Your task to perform on an android device: turn on location history Image 0: 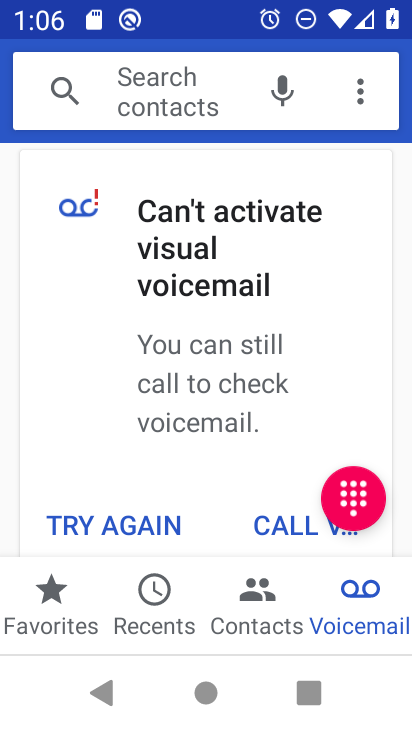
Step 0: press home button
Your task to perform on an android device: turn on location history Image 1: 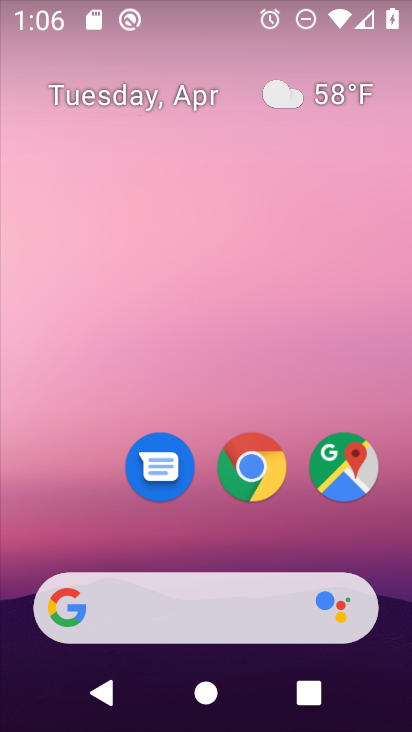
Step 1: drag from (153, 293) to (218, 690)
Your task to perform on an android device: turn on location history Image 2: 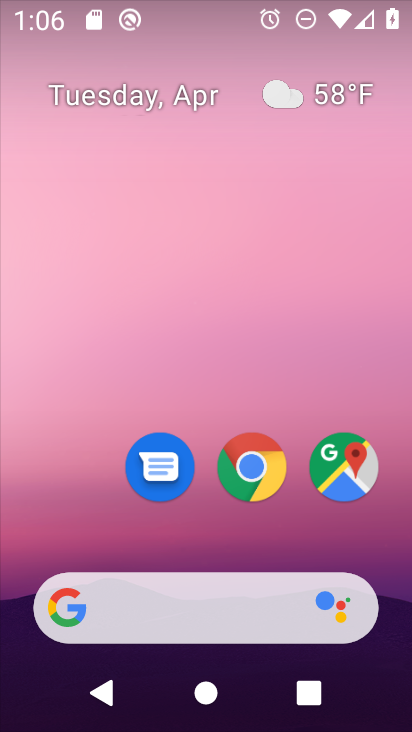
Step 2: drag from (238, 16) to (218, 653)
Your task to perform on an android device: turn on location history Image 3: 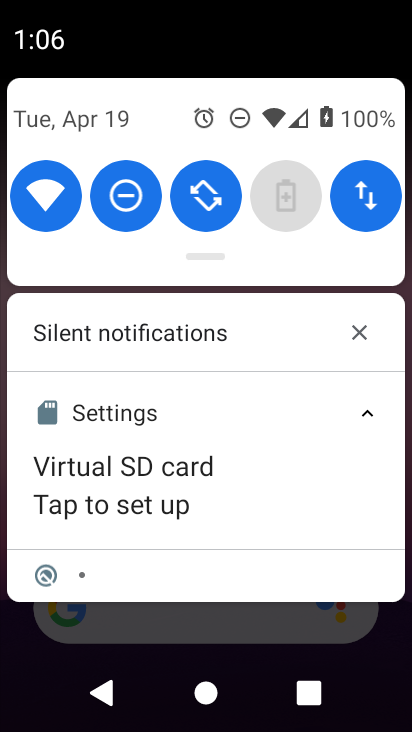
Step 3: drag from (227, 102) to (141, 713)
Your task to perform on an android device: turn on location history Image 4: 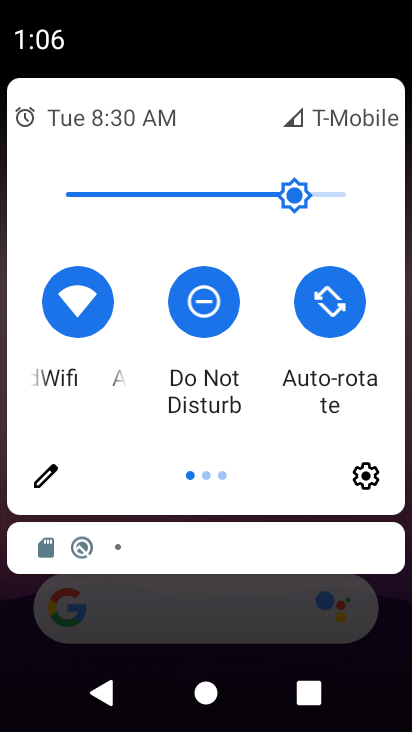
Step 4: click (365, 475)
Your task to perform on an android device: turn on location history Image 5: 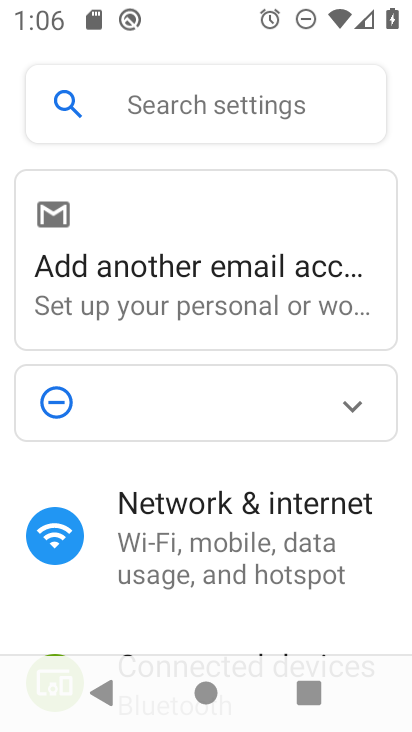
Step 5: drag from (166, 507) to (227, 89)
Your task to perform on an android device: turn on location history Image 6: 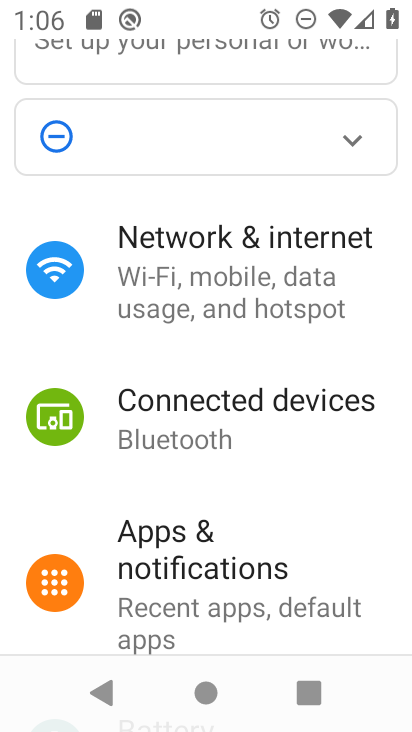
Step 6: drag from (168, 520) to (193, 91)
Your task to perform on an android device: turn on location history Image 7: 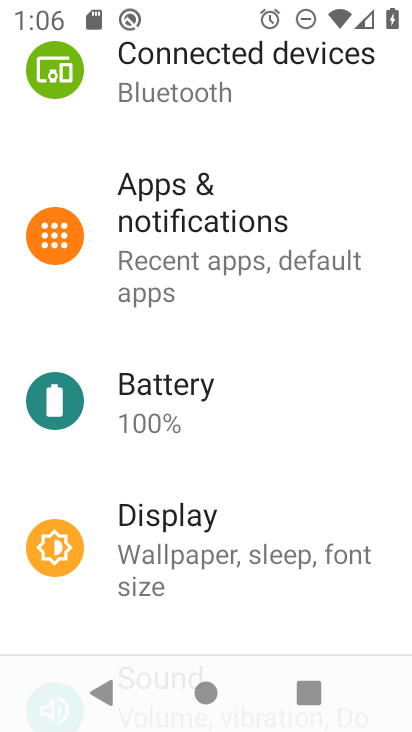
Step 7: drag from (101, 538) to (185, 44)
Your task to perform on an android device: turn on location history Image 8: 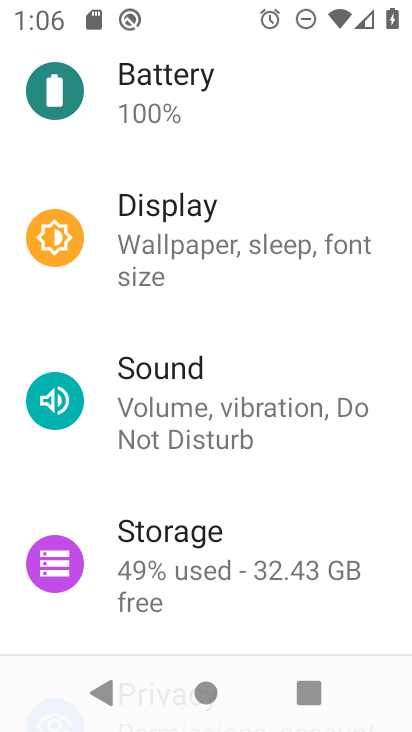
Step 8: drag from (200, 545) to (205, 61)
Your task to perform on an android device: turn on location history Image 9: 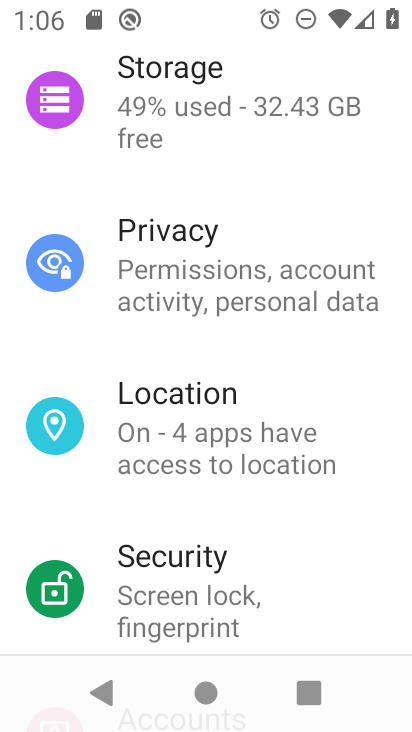
Step 9: click (158, 432)
Your task to perform on an android device: turn on location history Image 10: 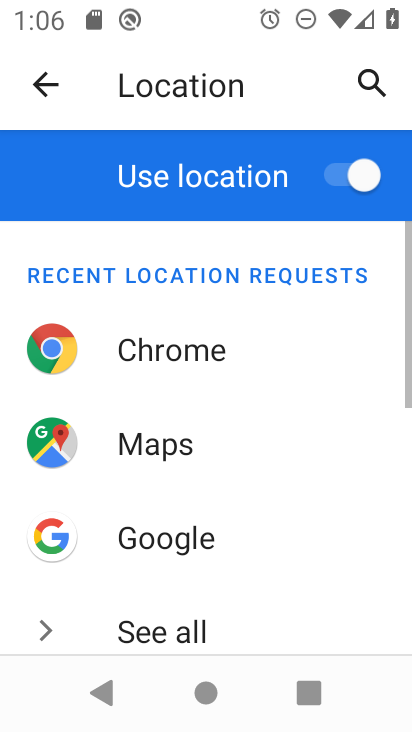
Step 10: drag from (159, 576) to (225, 63)
Your task to perform on an android device: turn on location history Image 11: 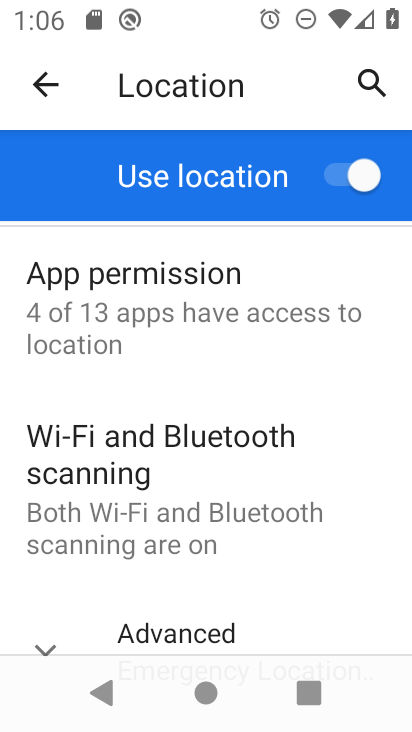
Step 11: drag from (140, 614) to (178, 170)
Your task to perform on an android device: turn on location history Image 12: 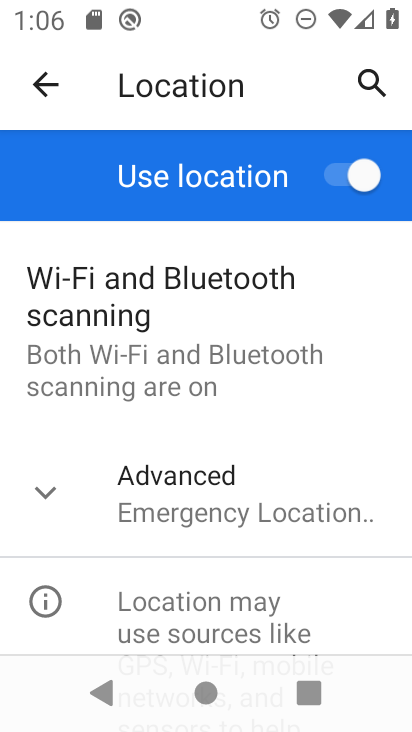
Step 12: click (187, 502)
Your task to perform on an android device: turn on location history Image 13: 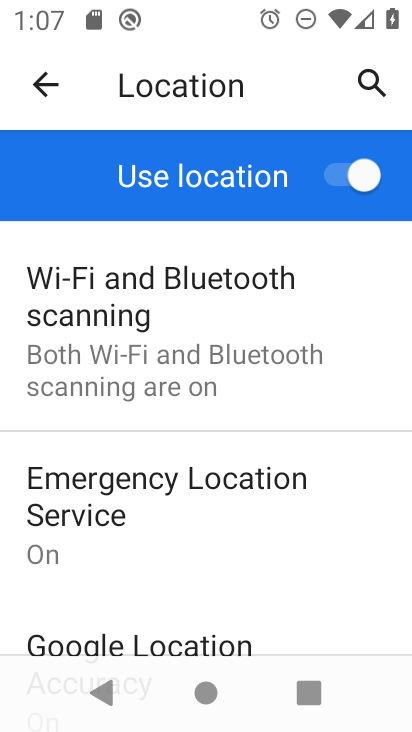
Step 13: drag from (121, 577) to (130, 126)
Your task to perform on an android device: turn on location history Image 14: 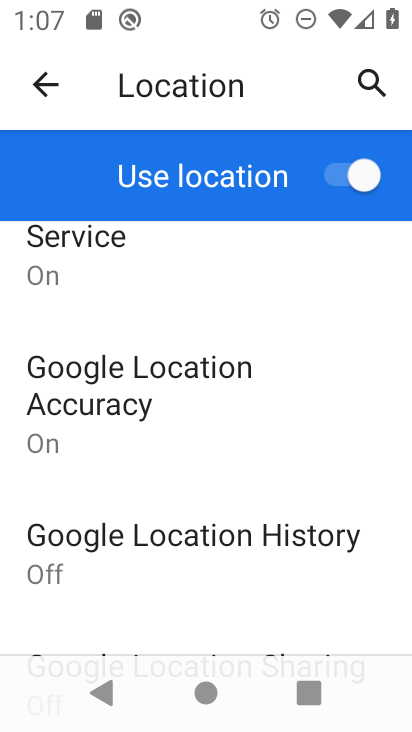
Step 14: click (117, 527)
Your task to perform on an android device: turn on location history Image 15: 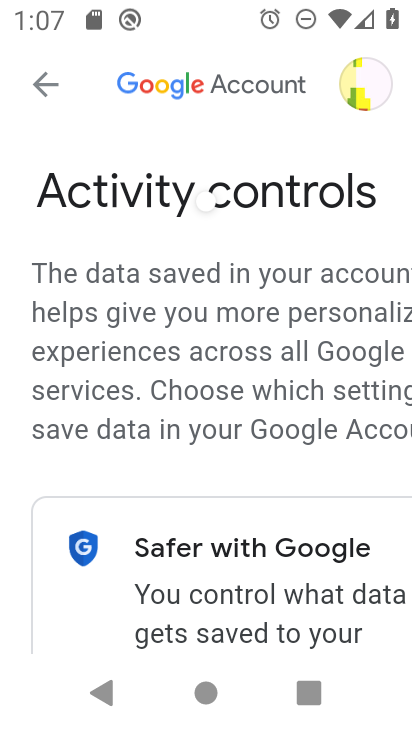
Step 15: task complete